Your task to perform on an android device: turn pop-ups off in chrome Image 0: 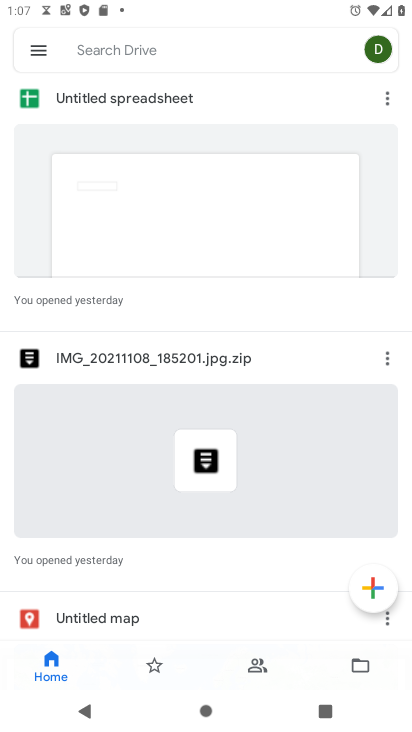
Step 0: press home button
Your task to perform on an android device: turn pop-ups off in chrome Image 1: 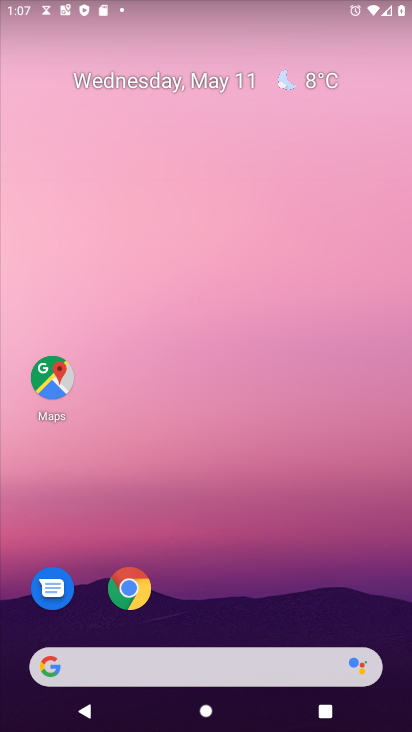
Step 1: click (134, 582)
Your task to perform on an android device: turn pop-ups off in chrome Image 2: 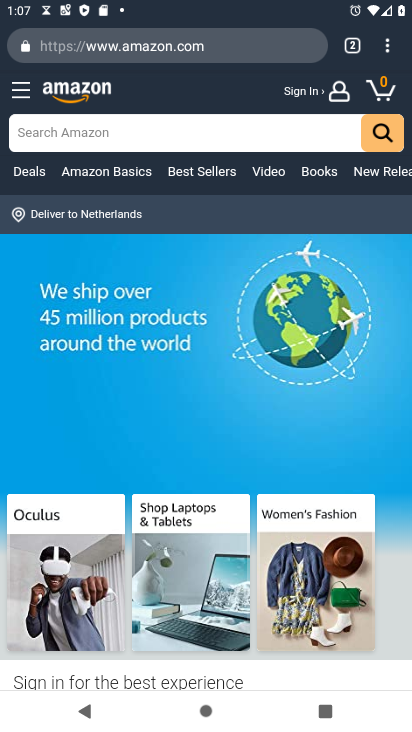
Step 2: drag from (383, 44) to (226, 556)
Your task to perform on an android device: turn pop-ups off in chrome Image 3: 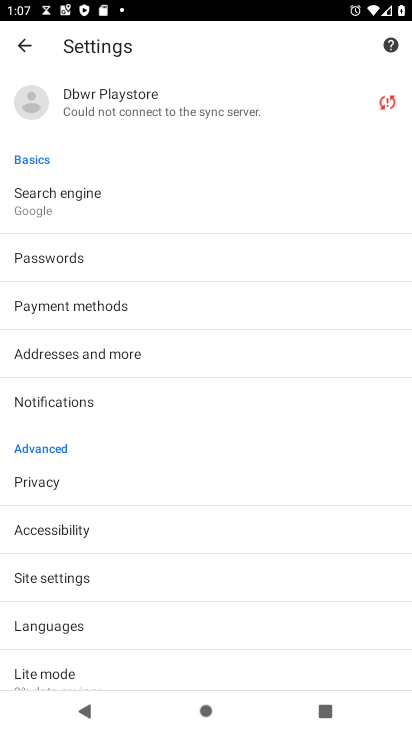
Step 3: click (67, 580)
Your task to perform on an android device: turn pop-ups off in chrome Image 4: 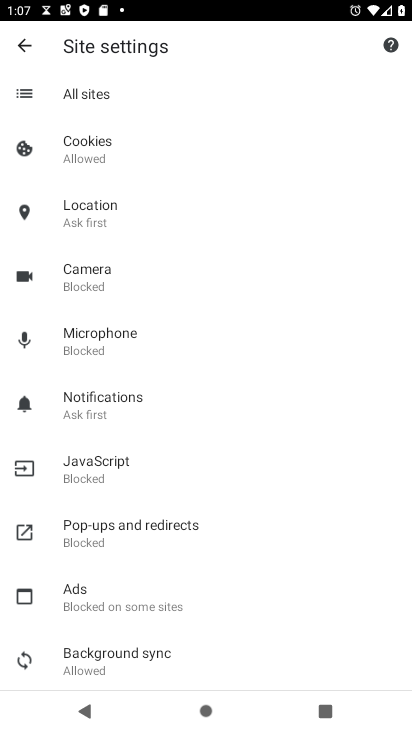
Step 4: click (123, 538)
Your task to perform on an android device: turn pop-ups off in chrome Image 5: 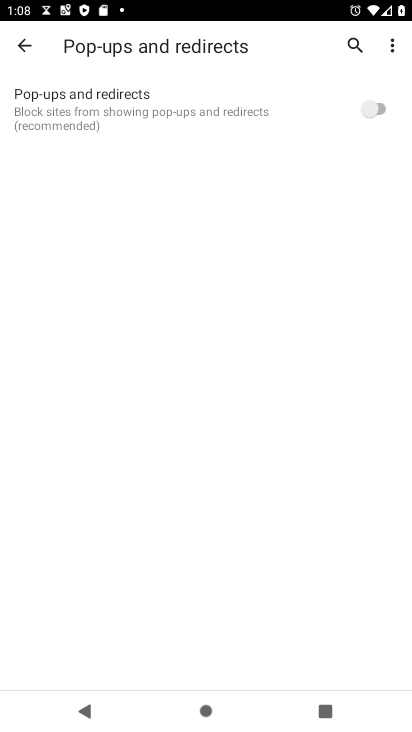
Step 5: task complete